Your task to perform on an android device: toggle translation in the chrome app Image 0: 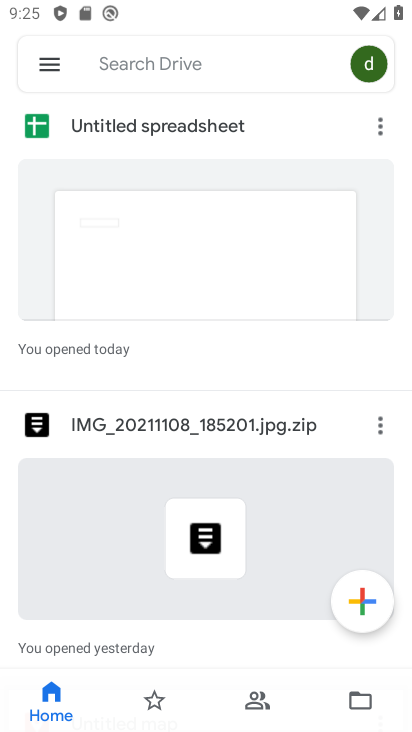
Step 0: press home button
Your task to perform on an android device: toggle translation in the chrome app Image 1: 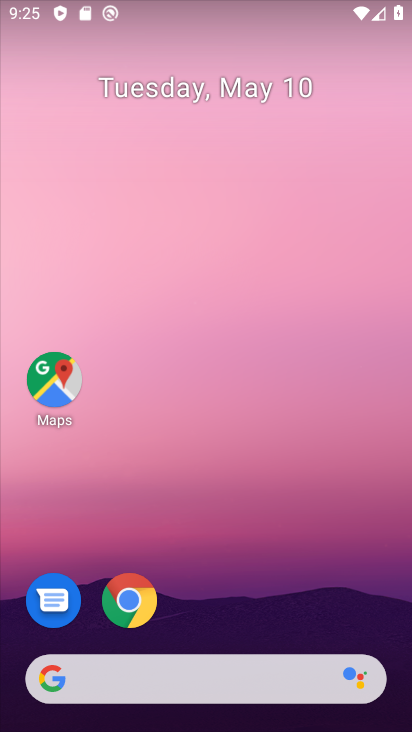
Step 1: click (126, 599)
Your task to perform on an android device: toggle translation in the chrome app Image 2: 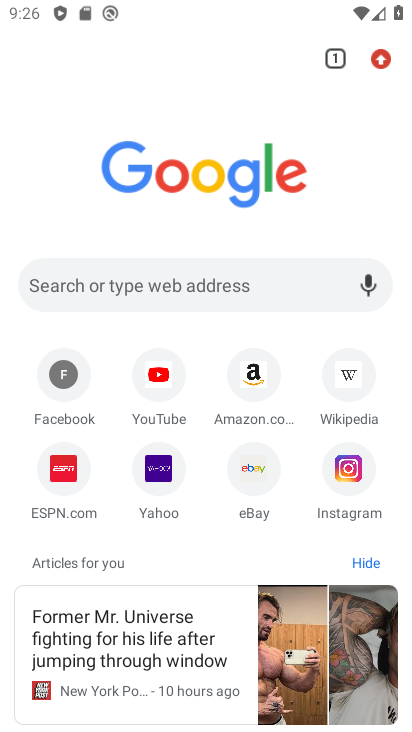
Step 2: click (380, 58)
Your task to perform on an android device: toggle translation in the chrome app Image 3: 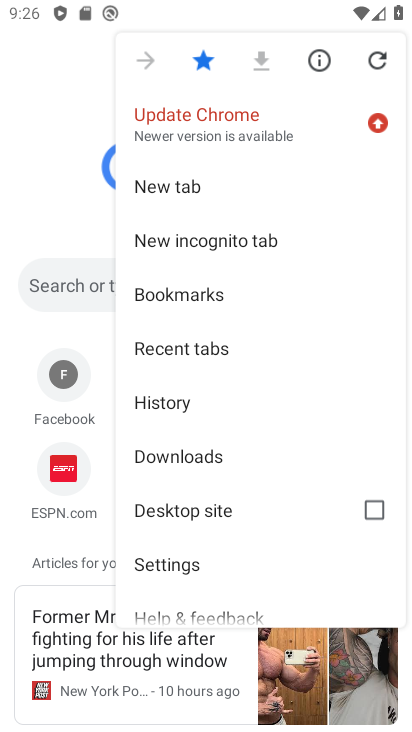
Step 3: drag from (191, 556) to (275, 260)
Your task to perform on an android device: toggle translation in the chrome app Image 4: 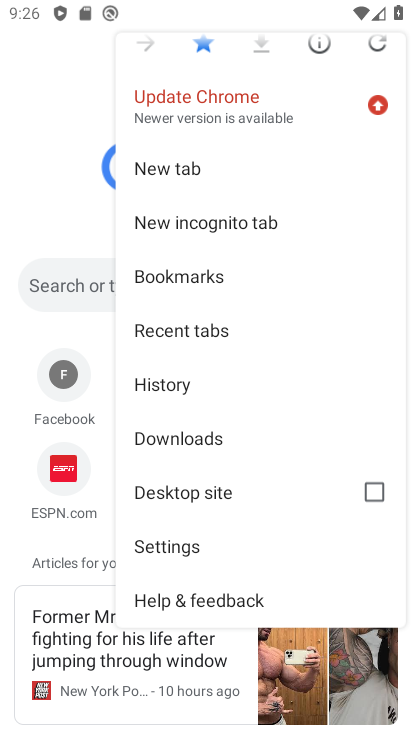
Step 4: click (170, 545)
Your task to perform on an android device: toggle translation in the chrome app Image 5: 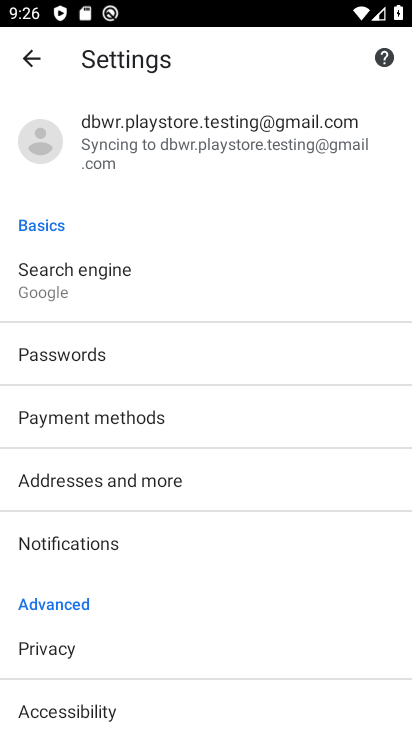
Step 5: drag from (190, 638) to (292, 166)
Your task to perform on an android device: toggle translation in the chrome app Image 6: 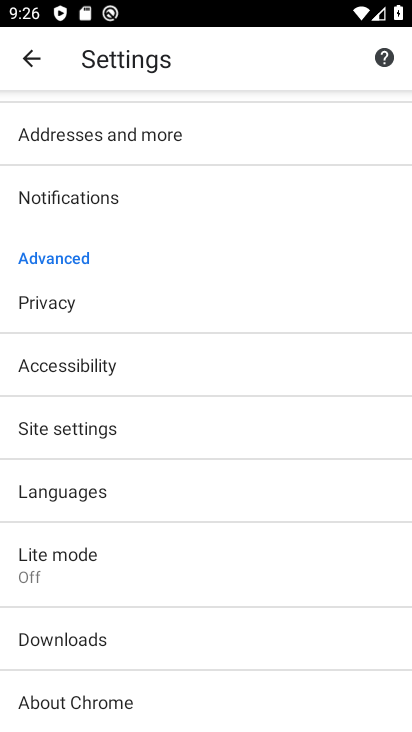
Step 6: click (47, 487)
Your task to perform on an android device: toggle translation in the chrome app Image 7: 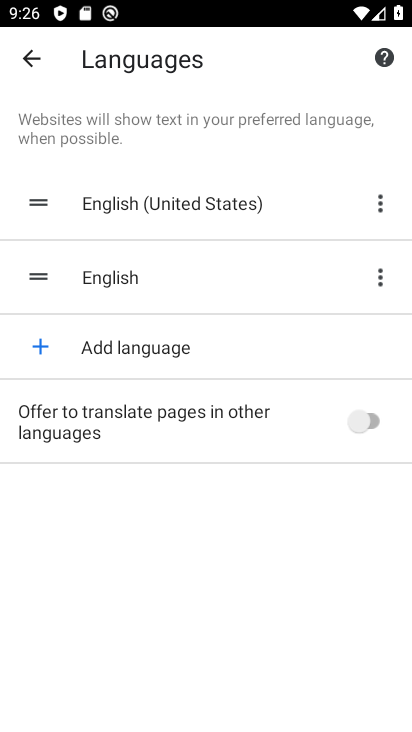
Step 7: click (366, 417)
Your task to perform on an android device: toggle translation in the chrome app Image 8: 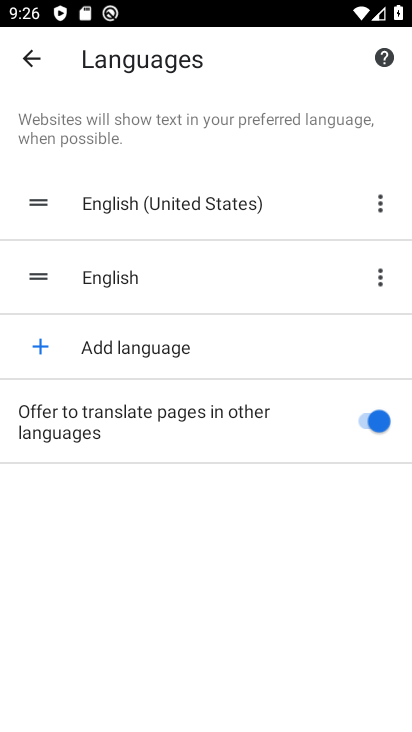
Step 8: task complete